Your task to perform on an android device: empty trash in the gmail app Image 0: 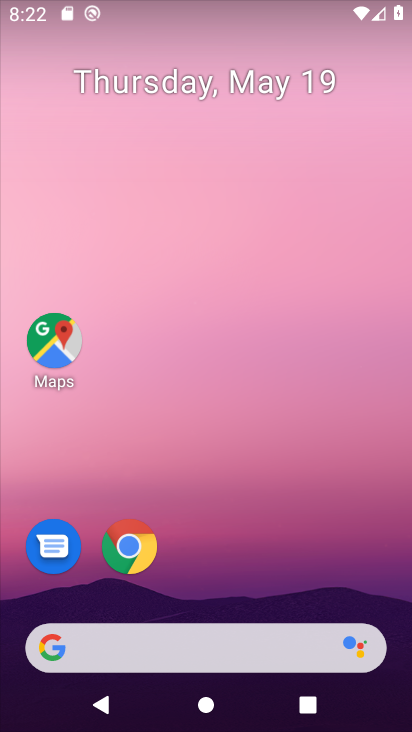
Step 0: drag from (249, 556) to (256, 5)
Your task to perform on an android device: empty trash in the gmail app Image 1: 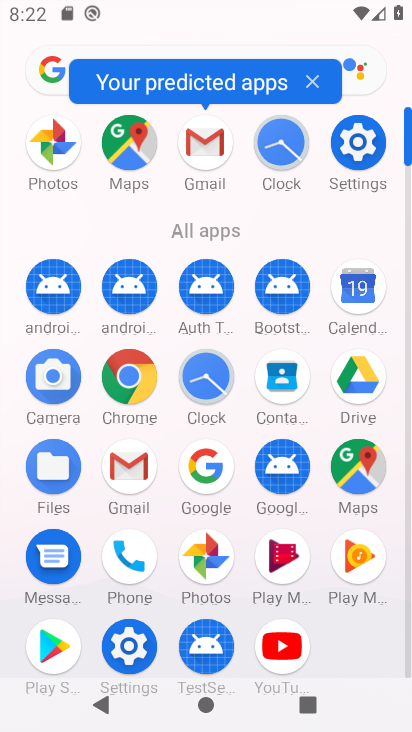
Step 1: click (132, 487)
Your task to perform on an android device: empty trash in the gmail app Image 2: 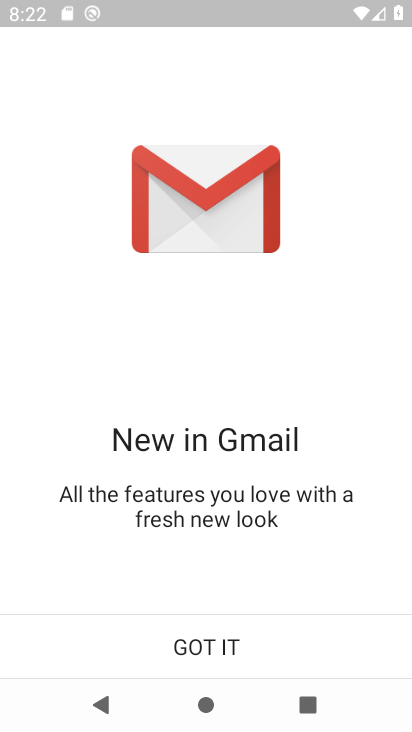
Step 2: click (145, 657)
Your task to perform on an android device: empty trash in the gmail app Image 3: 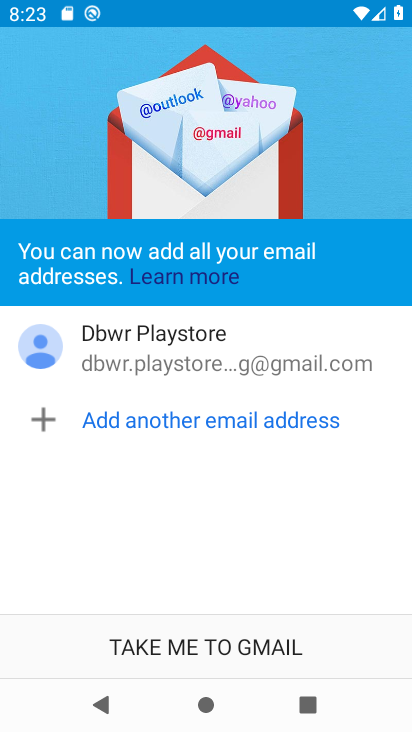
Step 3: click (181, 639)
Your task to perform on an android device: empty trash in the gmail app Image 4: 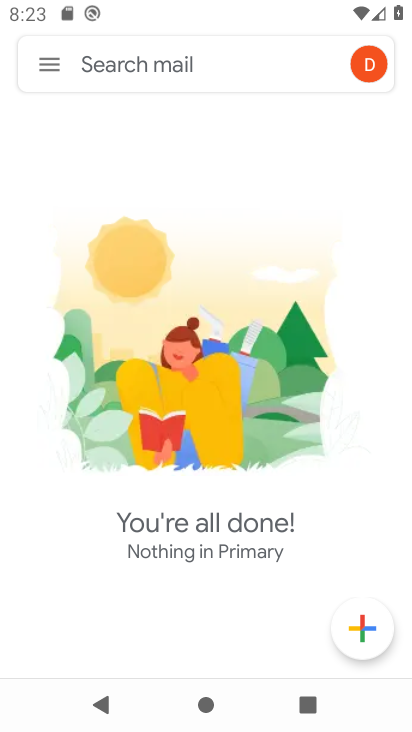
Step 4: click (51, 60)
Your task to perform on an android device: empty trash in the gmail app Image 5: 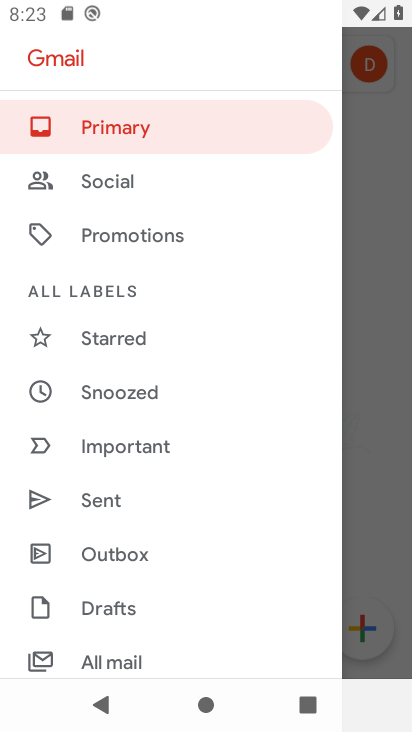
Step 5: drag from (138, 628) to (129, 215)
Your task to perform on an android device: empty trash in the gmail app Image 6: 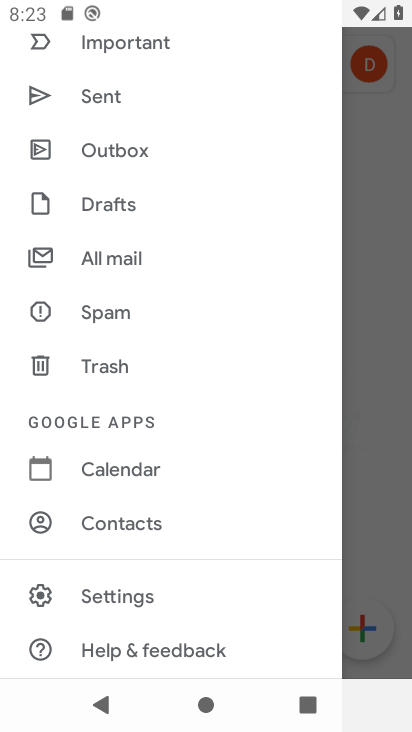
Step 6: drag from (112, 525) to (54, 185)
Your task to perform on an android device: empty trash in the gmail app Image 7: 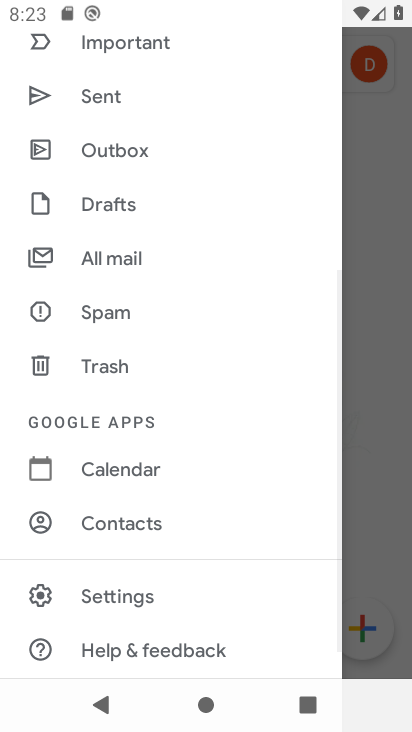
Step 7: click (85, 360)
Your task to perform on an android device: empty trash in the gmail app Image 8: 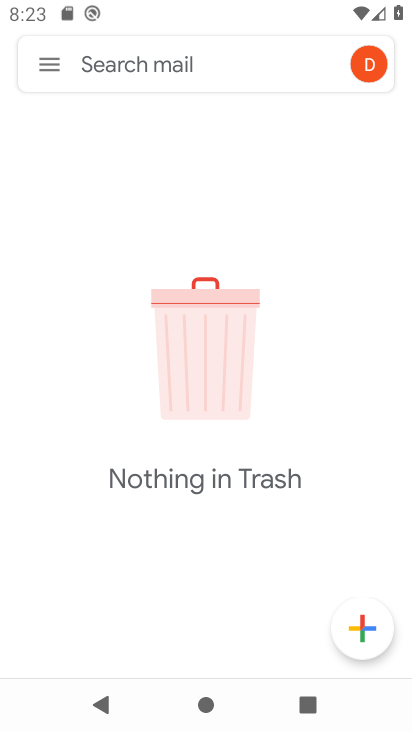
Step 8: task complete